Your task to perform on an android device: toggle priority inbox in the gmail app Image 0: 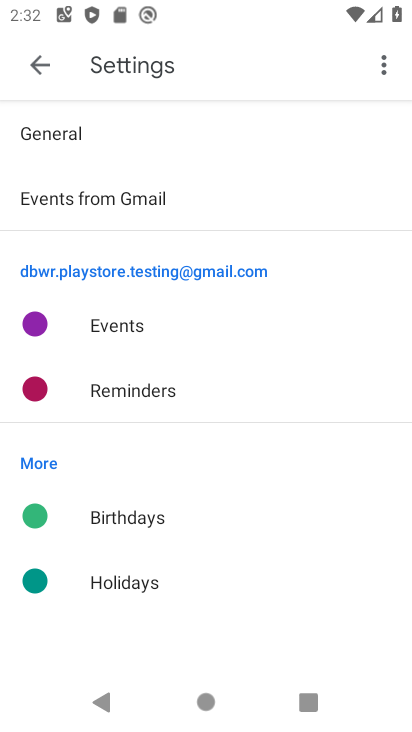
Step 0: press back button
Your task to perform on an android device: toggle priority inbox in the gmail app Image 1: 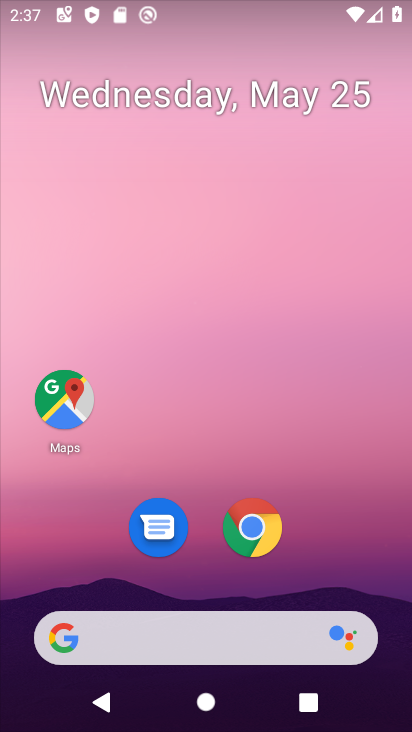
Step 1: drag from (194, 571) to (263, 182)
Your task to perform on an android device: toggle priority inbox in the gmail app Image 2: 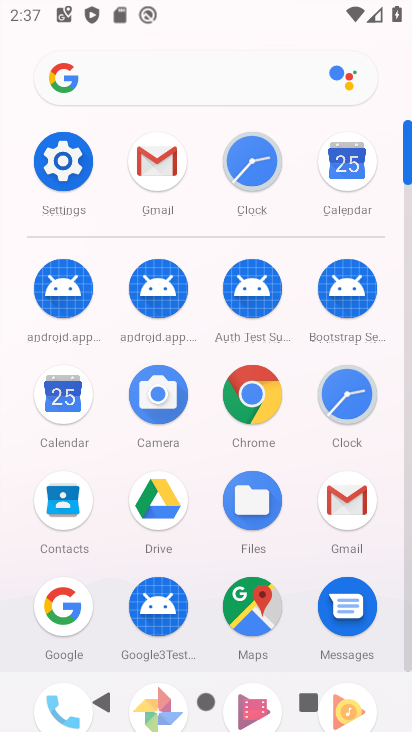
Step 2: click (149, 167)
Your task to perform on an android device: toggle priority inbox in the gmail app Image 3: 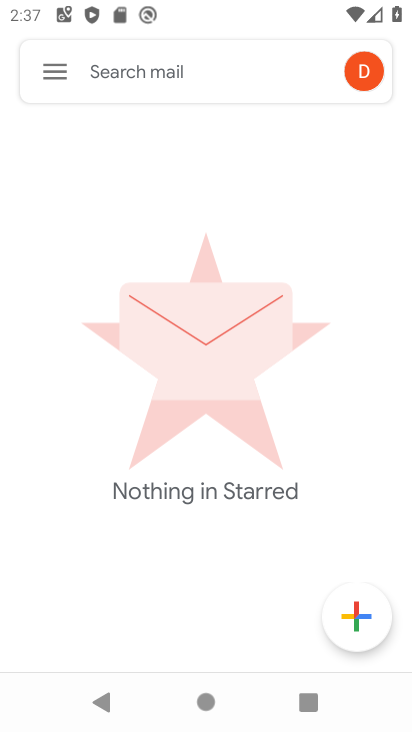
Step 3: click (53, 62)
Your task to perform on an android device: toggle priority inbox in the gmail app Image 4: 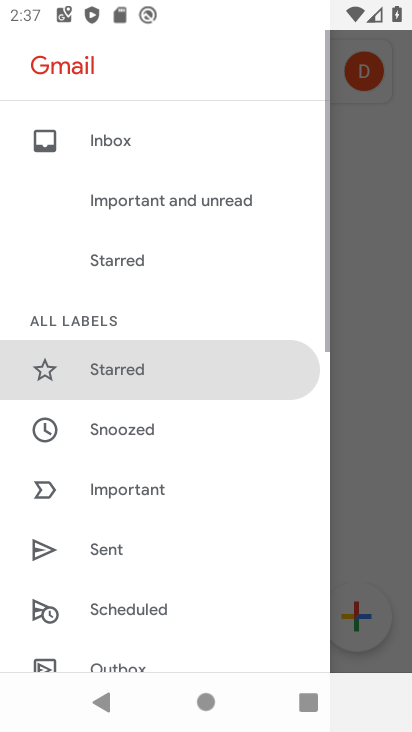
Step 4: drag from (112, 544) to (208, 53)
Your task to perform on an android device: toggle priority inbox in the gmail app Image 5: 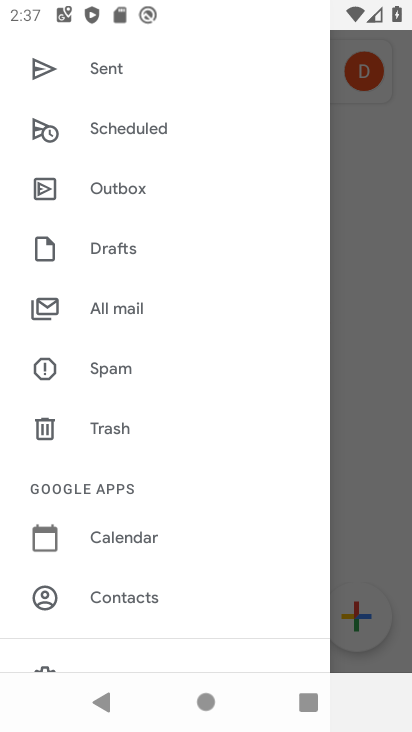
Step 5: drag from (153, 597) to (215, 156)
Your task to perform on an android device: toggle priority inbox in the gmail app Image 6: 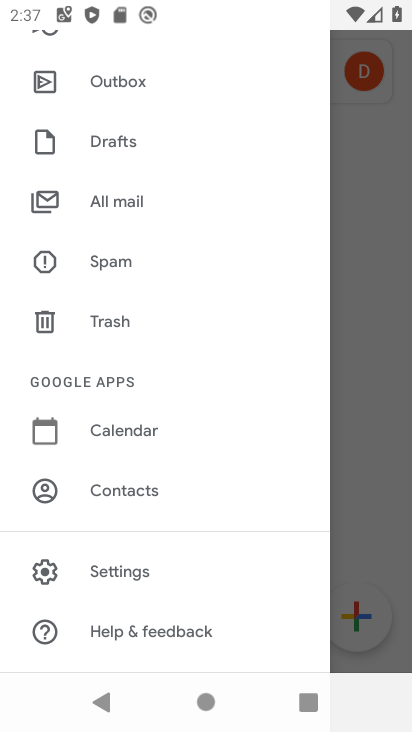
Step 6: click (102, 566)
Your task to perform on an android device: toggle priority inbox in the gmail app Image 7: 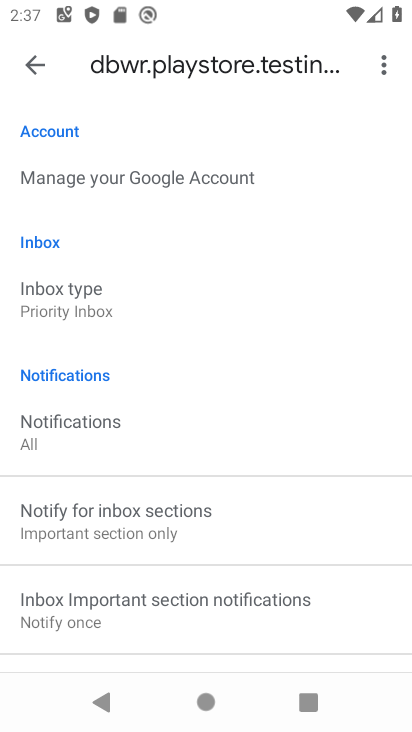
Step 7: click (98, 292)
Your task to perform on an android device: toggle priority inbox in the gmail app Image 8: 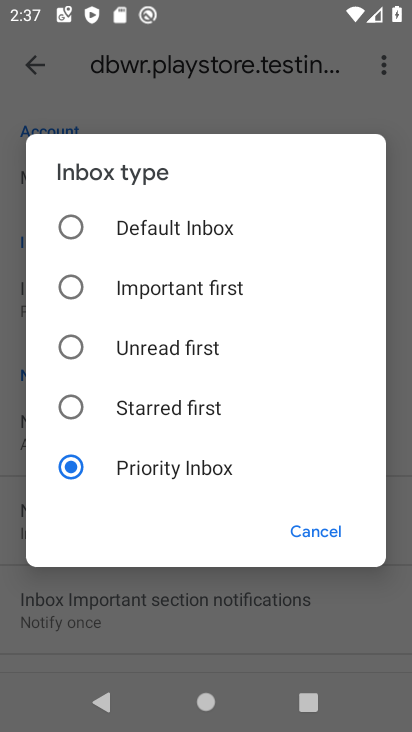
Step 8: click (77, 462)
Your task to perform on an android device: toggle priority inbox in the gmail app Image 9: 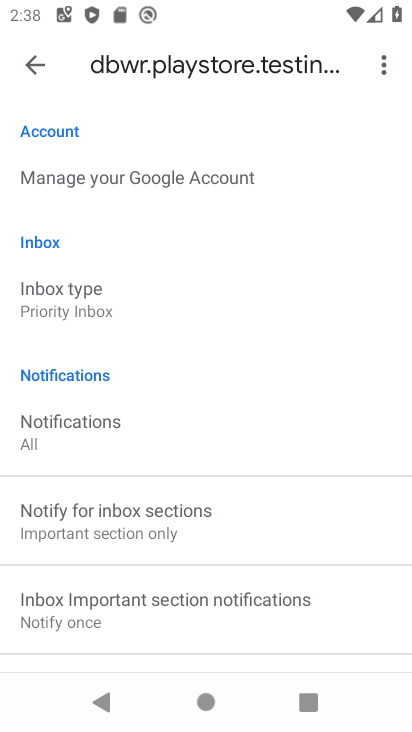
Step 9: task complete